Your task to perform on an android device: turn off location history Image 0: 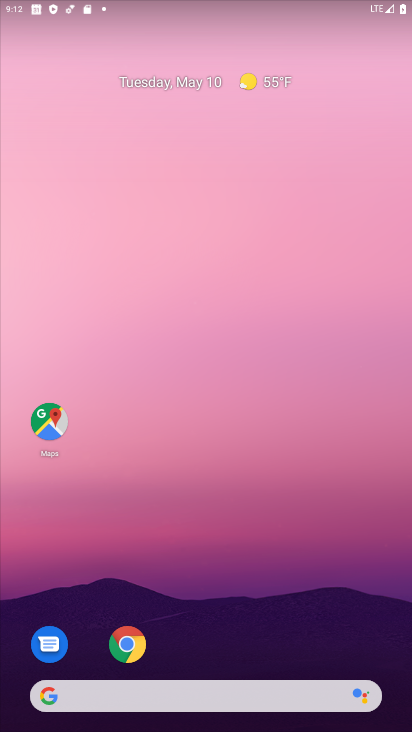
Step 0: drag from (222, 592) to (177, 168)
Your task to perform on an android device: turn off location history Image 1: 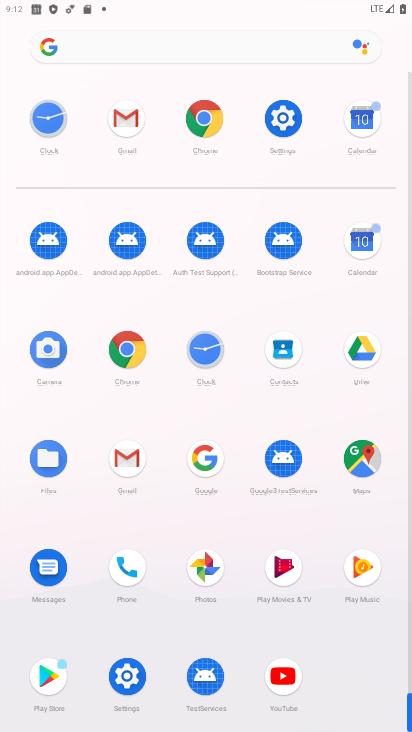
Step 1: click (286, 132)
Your task to perform on an android device: turn off location history Image 2: 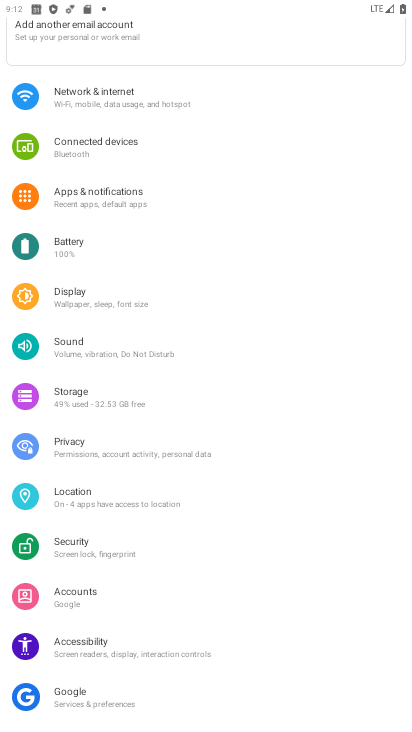
Step 2: click (189, 512)
Your task to perform on an android device: turn off location history Image 3: 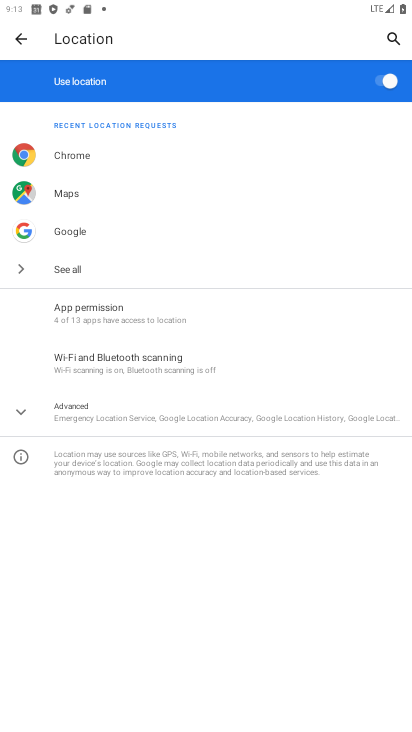
Step 3: click (172, 416)
Your task to perform on an android device: turn off location history Image 4: 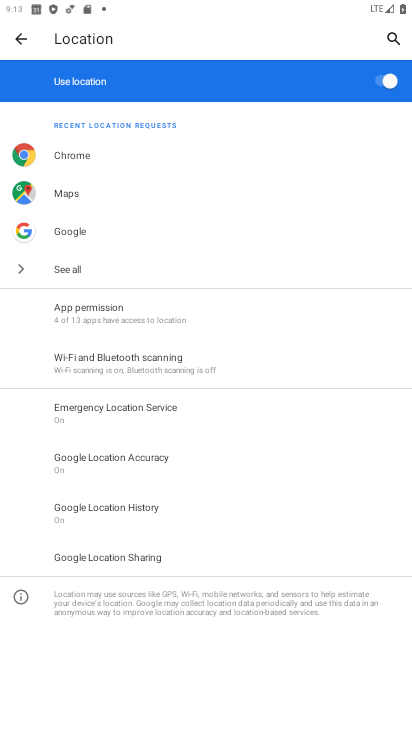
Step 4: click (155, 502)
Your task to perform on an android device: turn off location history Image 5: 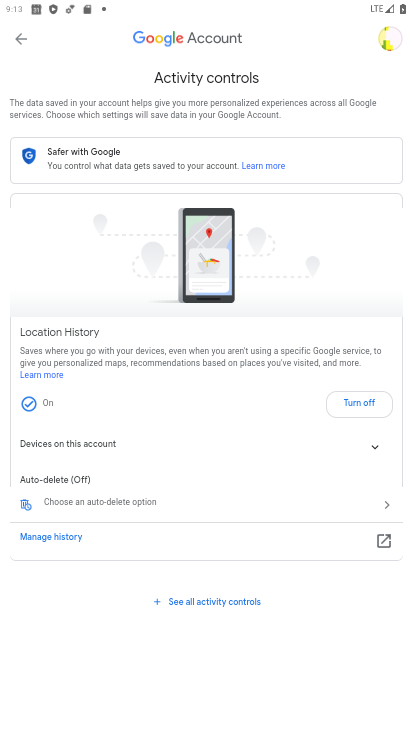
Step 5: click (359, 402)
Your task to perform on an android device: turn off location history Image 6: 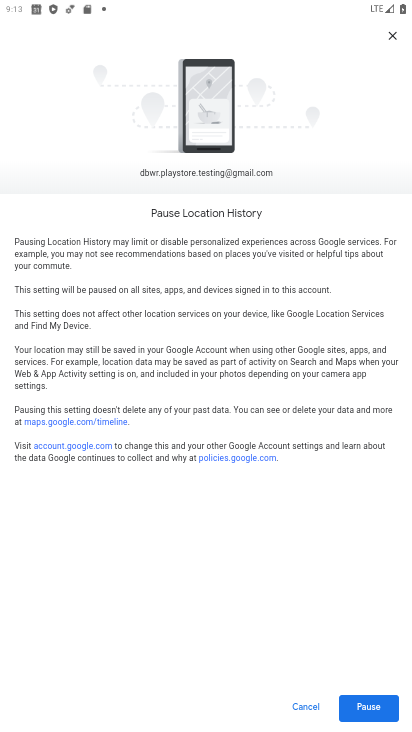
Step 6: click (387, 706)
Your task to perform on an android device: turn off location history Image 7: 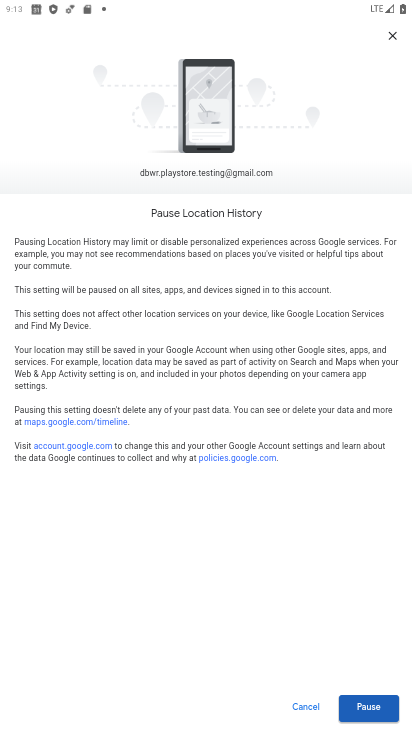
Step 7: click (388, 699)
Your task to perform on an android device: turn off location history Image 8: 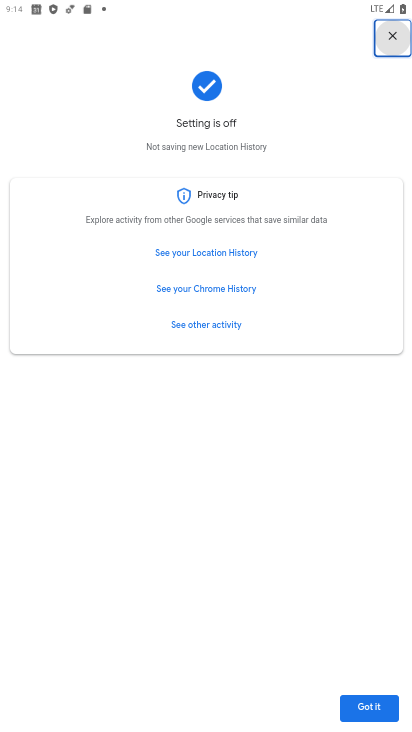
Step 8: task complete